Your task to perform on an android device: Search for energizer triple a on bestbuy, select the first entry, and add it to the cart. Image 0: 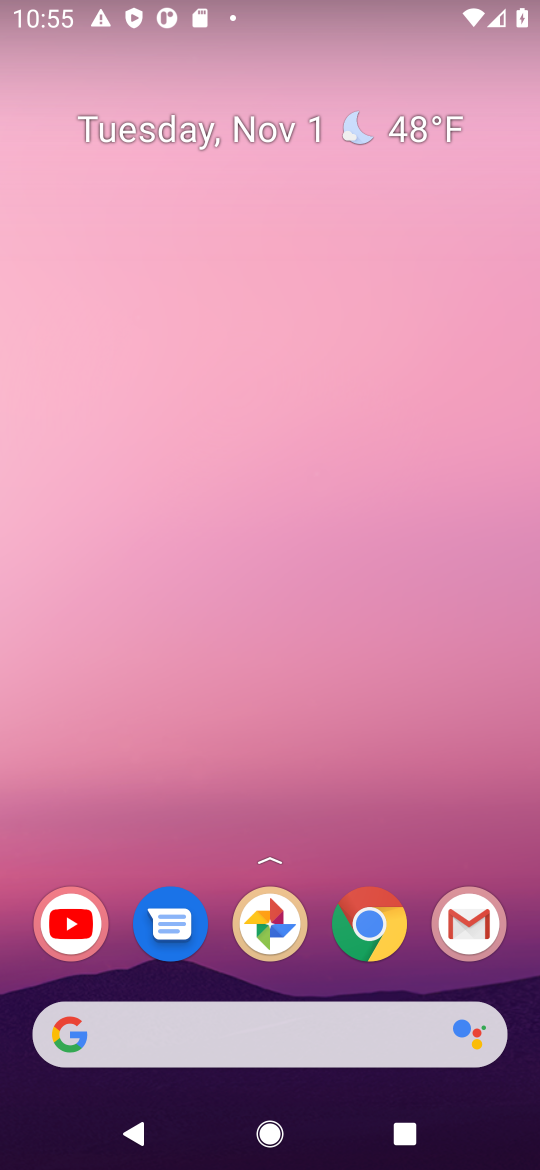
Step 0: click (363, 916)
Your task to perform on an android device: Search for energizer triple a on bestbuy, select the first entry, and add it to the cart. Image 1: 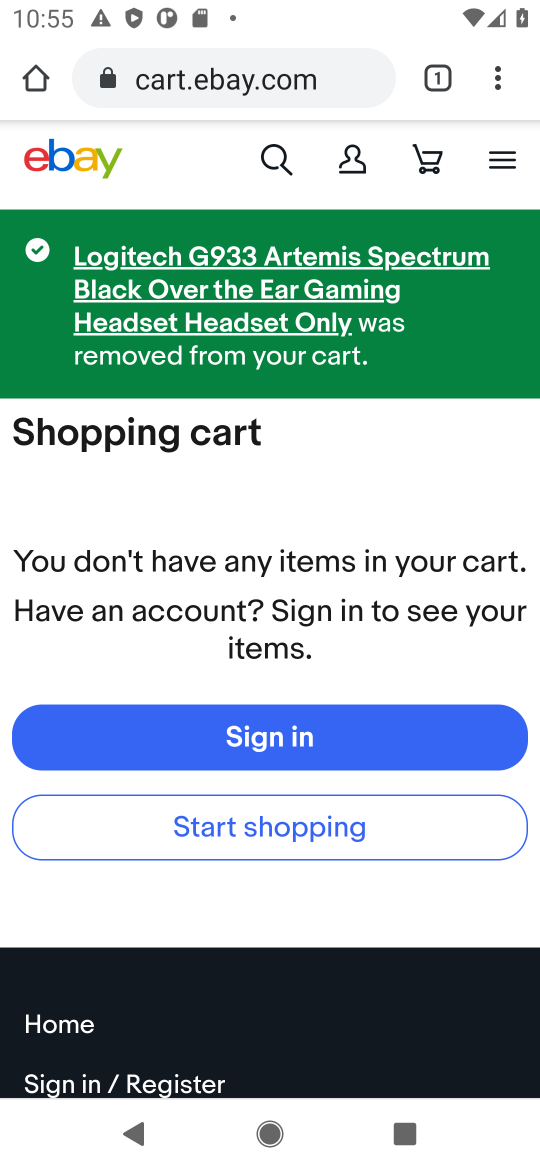
Step 1: click (248, 74)
Your task to perform on an android device: Search for energizer triple a on bestbuy, select the first entry, and add it to the cart. Image 2: 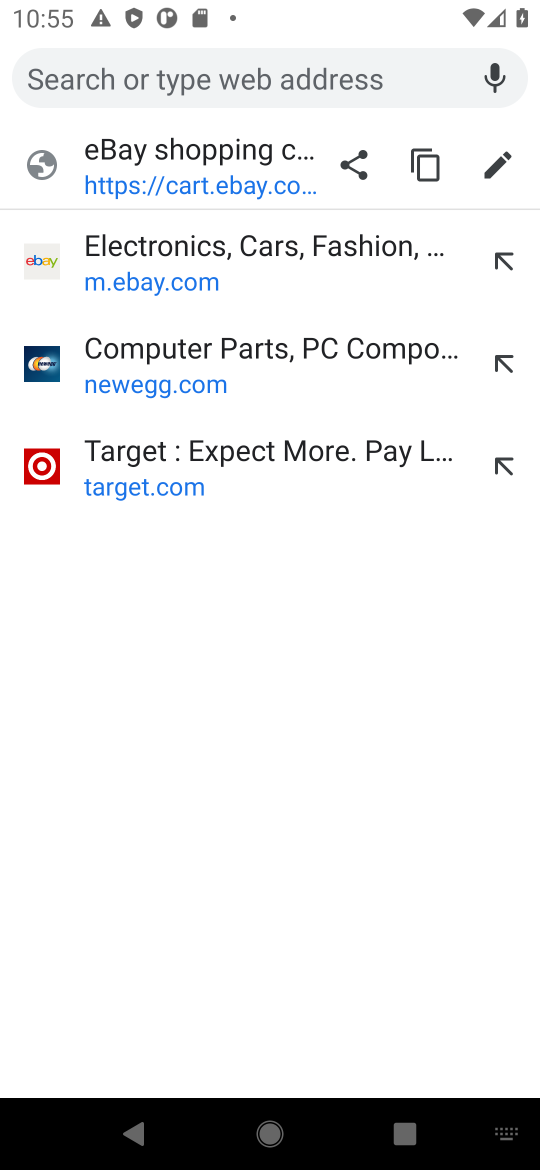
Step 2: type "bestbuy"
Your task to perform on an android device: Search for energizer triple a on bestbuy, select the first entry, and add it to the cart. Image 3: 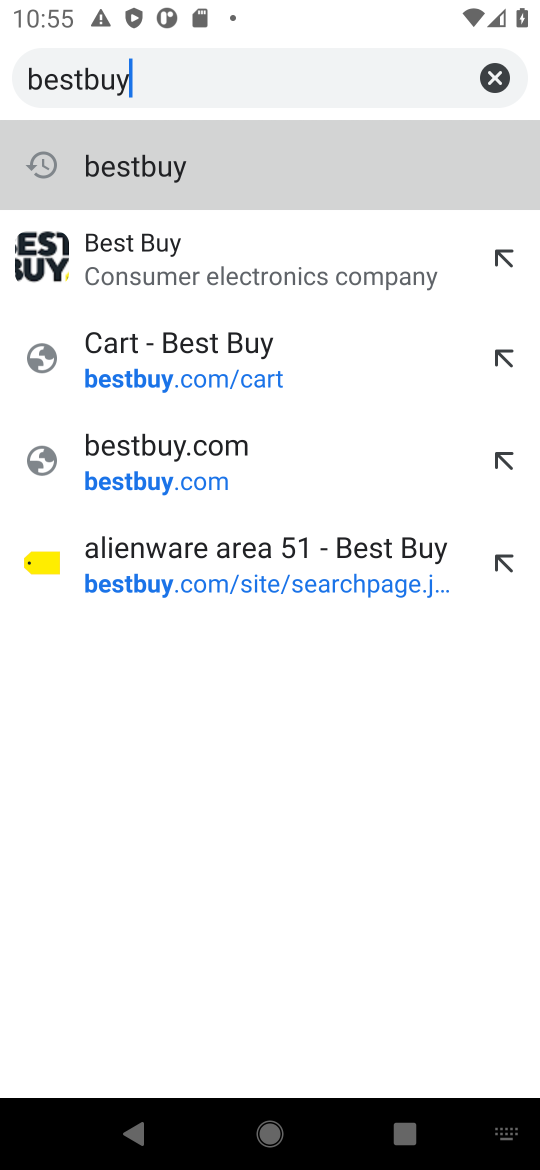
Step 3: click (134, 159)
Your task to perform on an android device: Search for energizer triple a on bestbuy, select the first entry, and add it to the cart. Image 4: 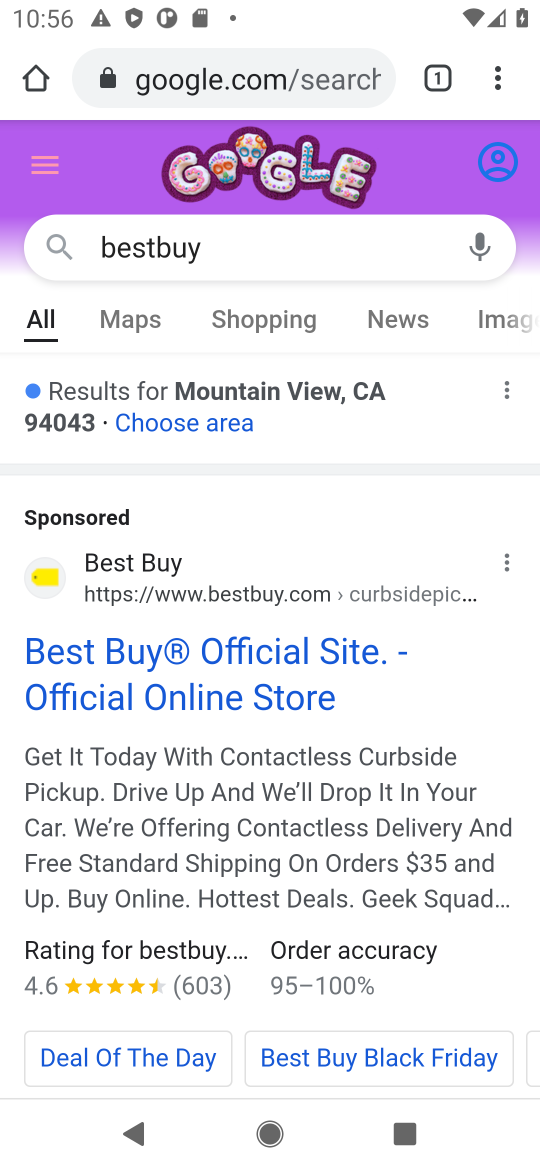
Step 4: click (188, 655)
Your task to perform on an android device: Search for energizer triple a on bestbuy, select the first entry, and add it to the cart. Image 5: 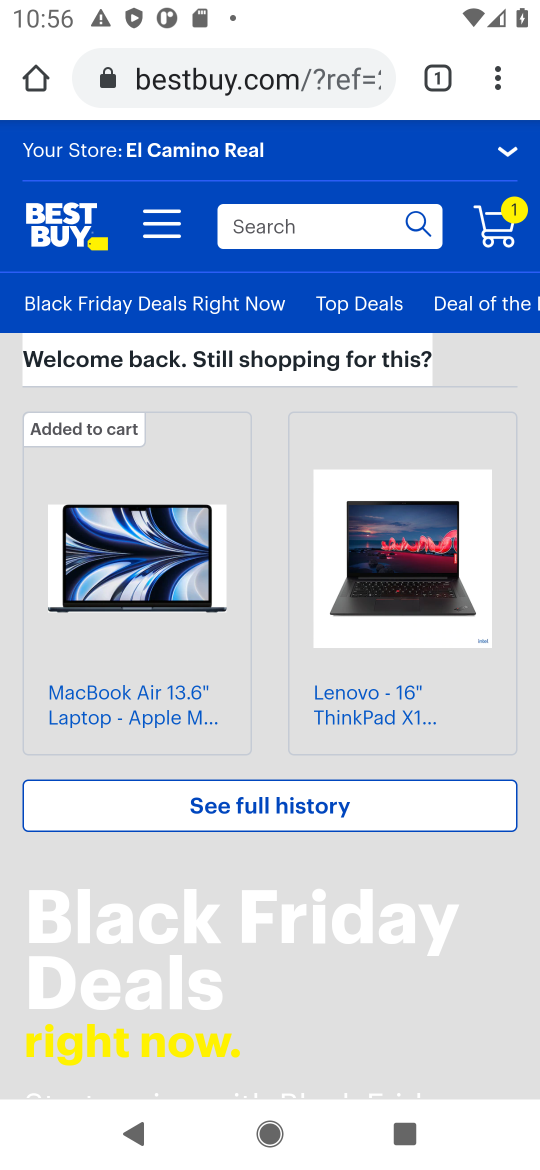
Step 5: click (356, 219)
Your task to perform on an android device: Search for energizer triple a on bestbuy, select the first entry, and add it to the cart. Image 6: 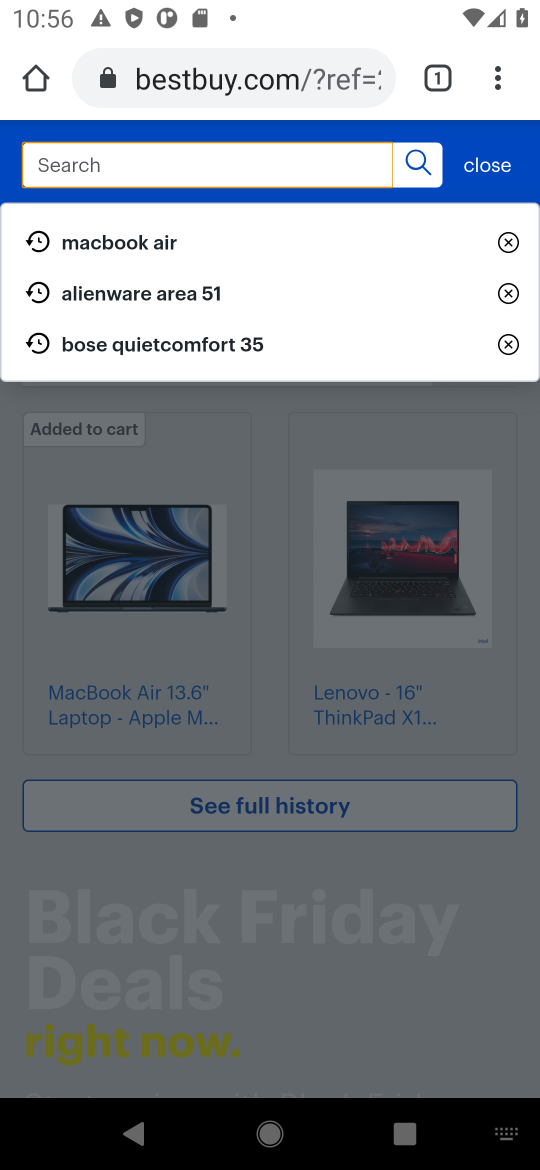
Step 6: type "energizer triple"
Your task to perform on an android device: Search for energizer triple a on bestbuy, select the first entry, and add it to the cart. Image 7: 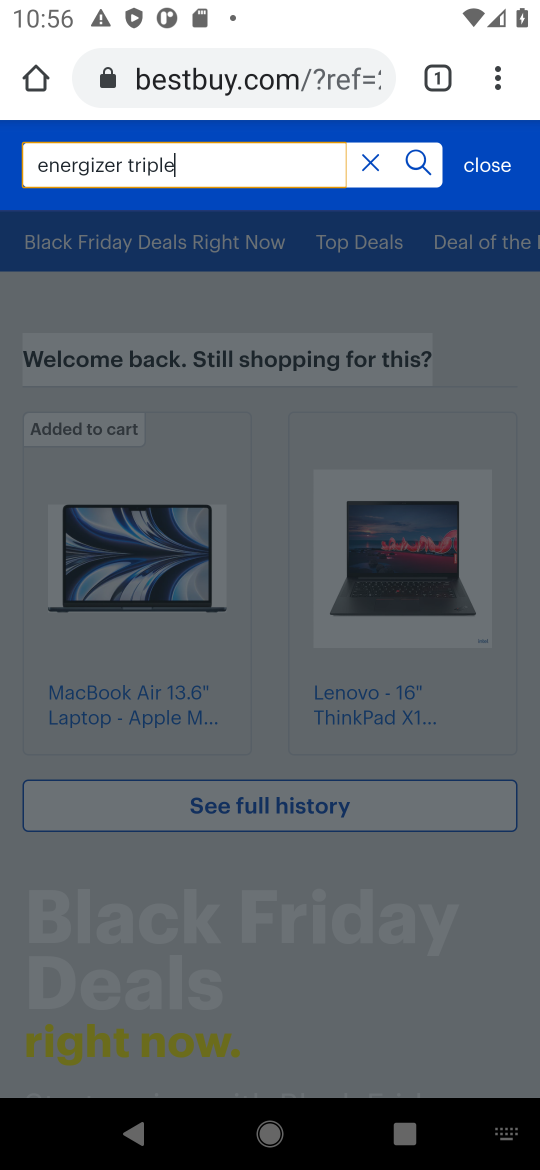
Step 7: type " a"
Your task to perform on an android device: Search for energizer triple a on bestbuy, select the first entry, and add it to the cart. Image 8: 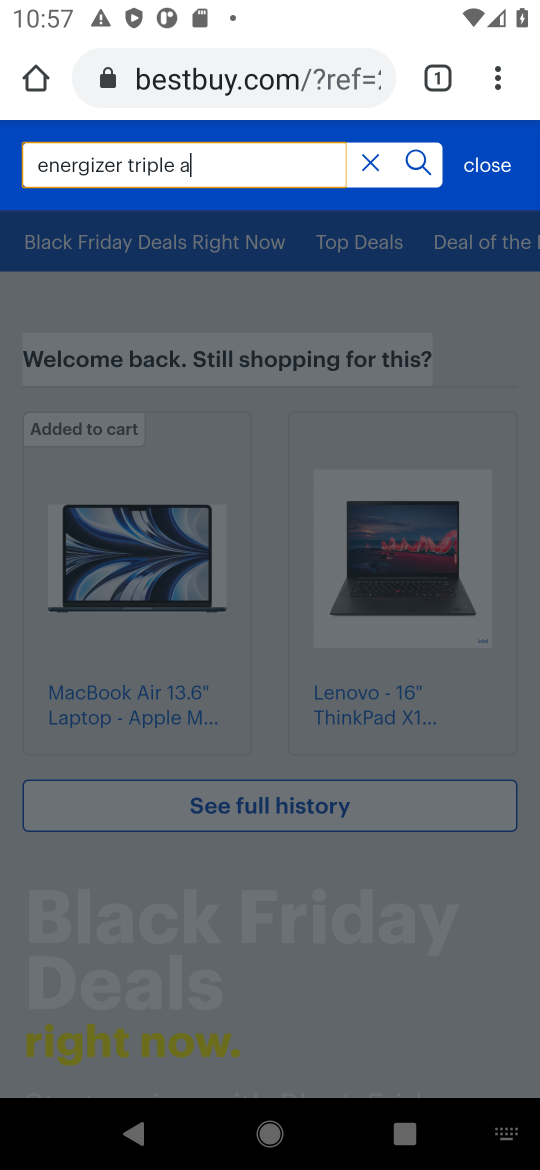
Step 8: press enter
Your task to perform on an android device: Search for energizer triple a on bestbuy, select the first entry, and add it to the cart. Image 9: 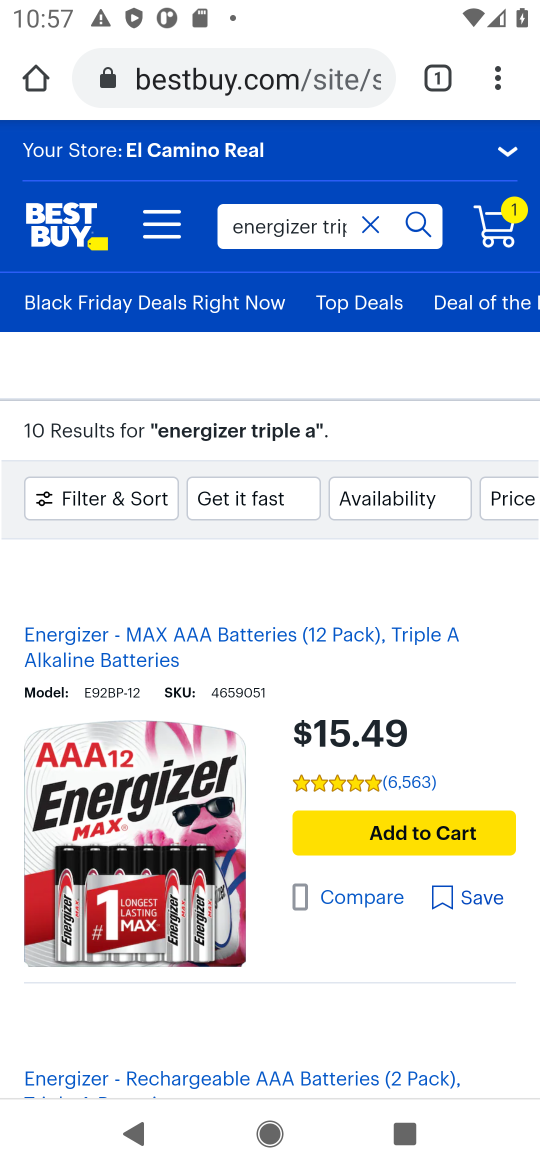
Step 9: drag from (330, 897) to (294, 721)
Your task to perform on an android device: Search for energizer triple a on bestbuy, select the first entry, and add it to the cart. Image 10: 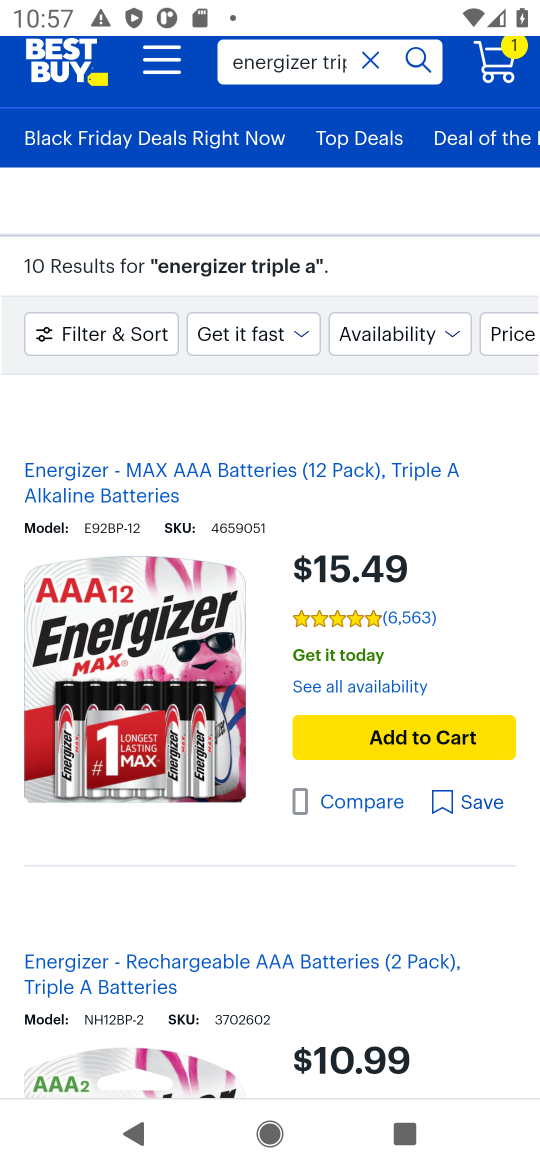
Step 10: click (107, 564)
Your task to perform on an android device: Search for energizer triple a on bestbuy, select the first entry, and add it to the cart. Image 11: 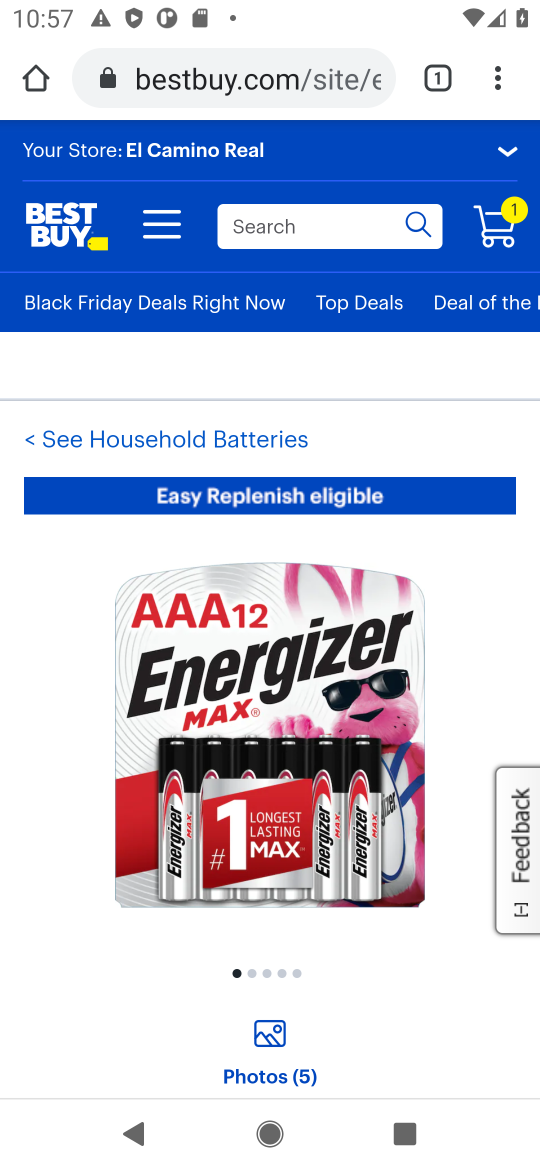
Step 11: drag from (424, 1018) to (434, 624)
Your task to perform on an android device: Search for energizer triple a on bestbuy, select the first entry, and add it to the cart. Image 12: 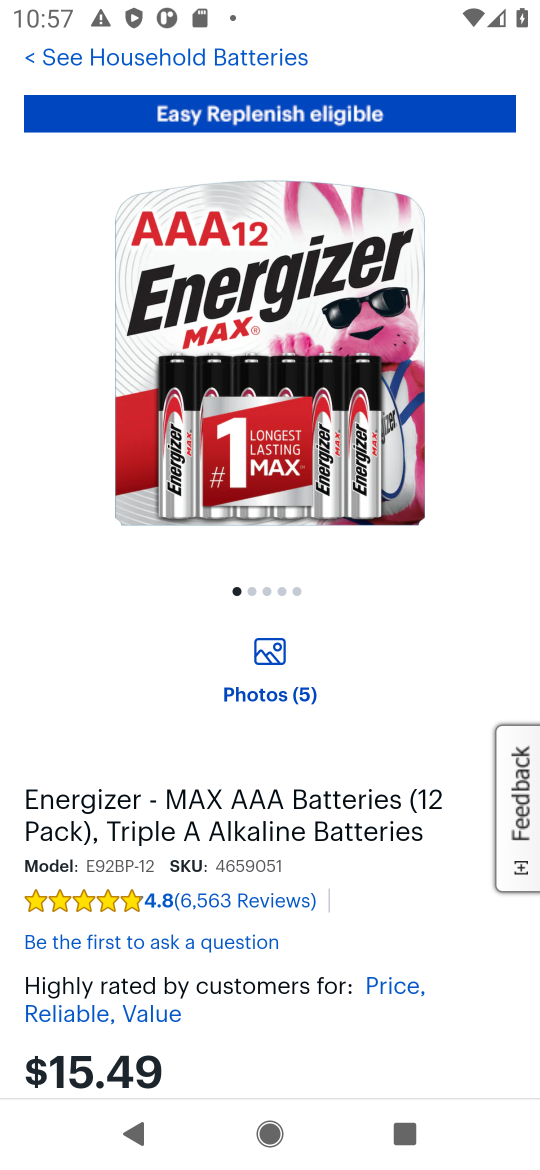
Step 12: drag from (417, 863) to (409, 547)
Your task to perform on an android device: Search for energizer triple a on bestbuy, select the first entry, and add it to the cart. Image 13: 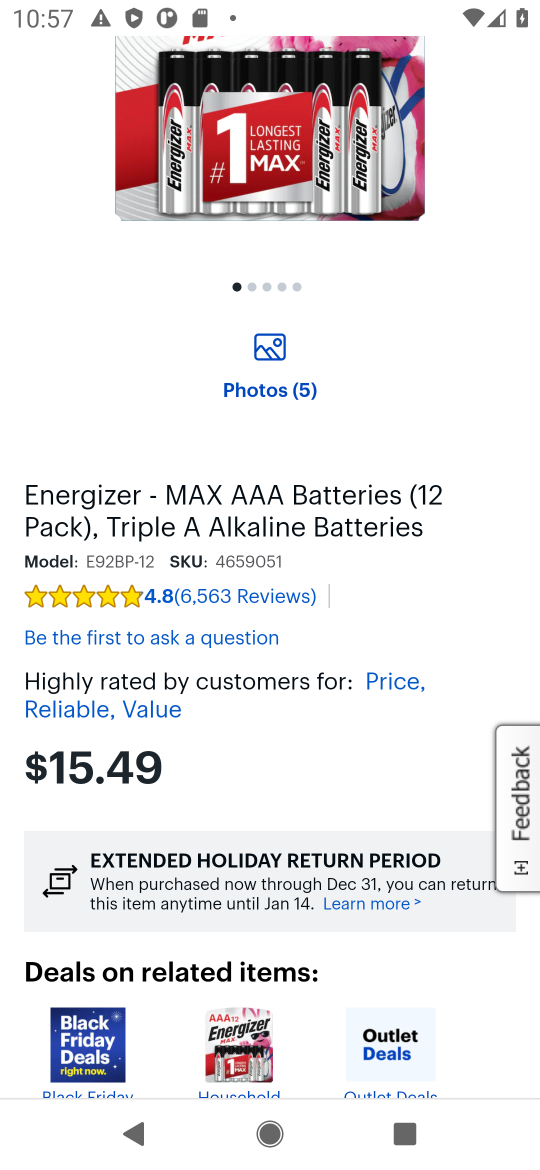
Step 13: drag from (418, 762) to (375, 468)
Your task to perform on an android device: Search for energizer triple a on bestbuy, select the first entry, and add it to the cart. Image 14: 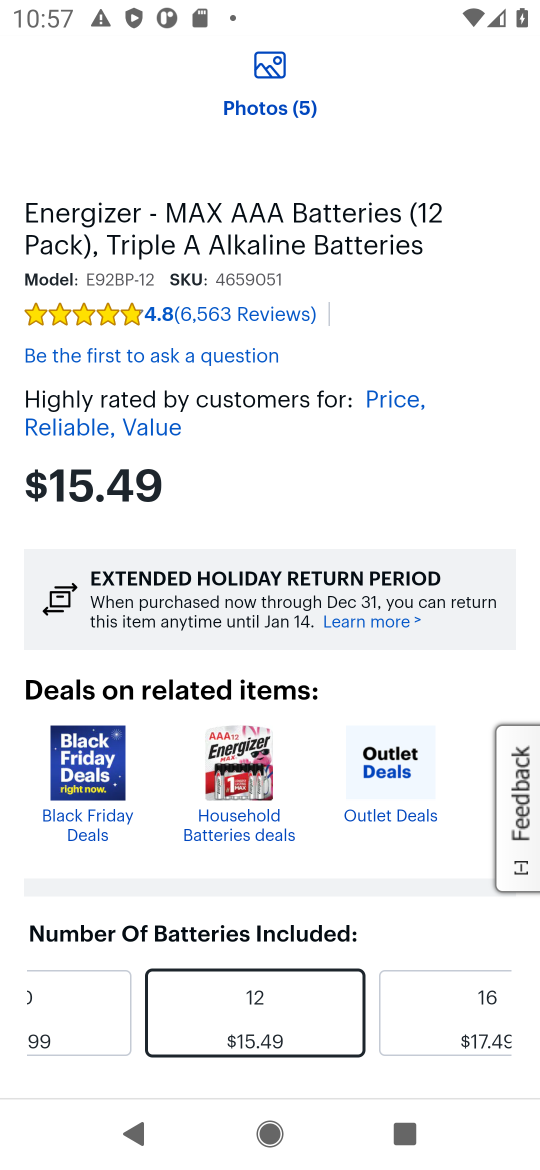
Step 14: drag from (380, 862) to (294, 267)
Your task to perform on an android device: Search for energizer triple a on bestbuy, select the first entry, and add it to the cart. Image 15: 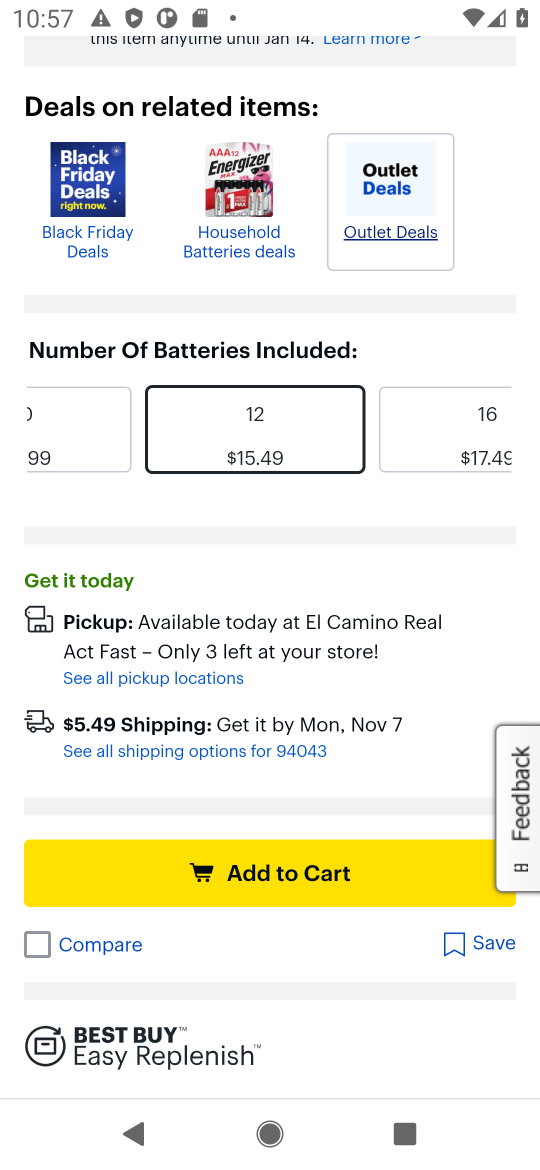
Step 15: click (289, 869)
Your task to perform on an android device: Search for energizer triple a on bestbuy, select the first entry, and add it to the cart. Image 16: 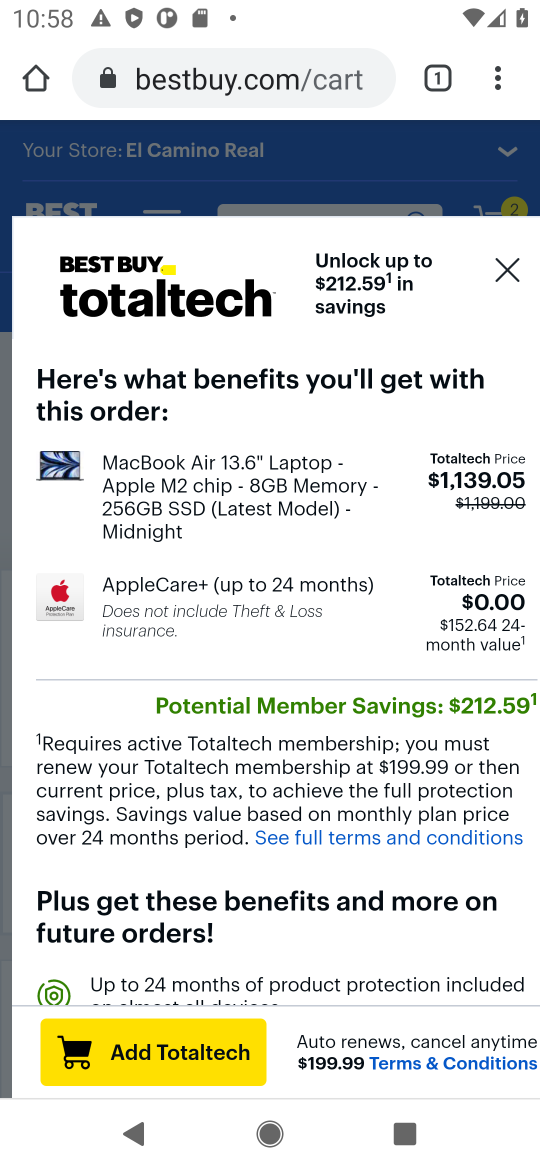
Step 16: task complete